Your task to perform on an android device: change your default location settings in chrome Image 0: 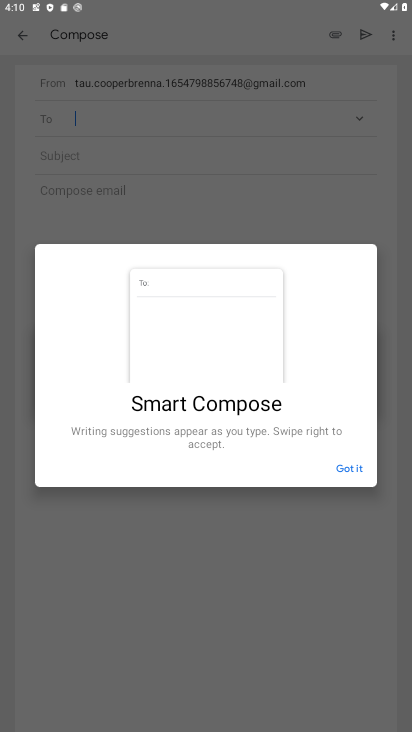
Step 0: press home button
Your task to perform on an android device: change your default location settings in chrome Image 1: 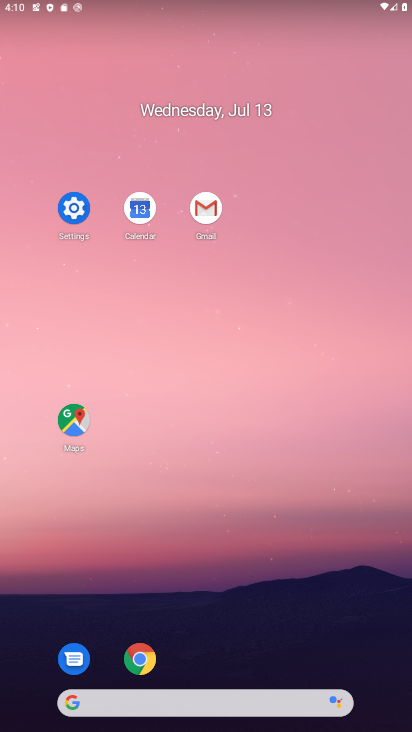
Step 1: click (139, 658)
Your task to perform on an android device: change your default location settings in chrome Image 2: 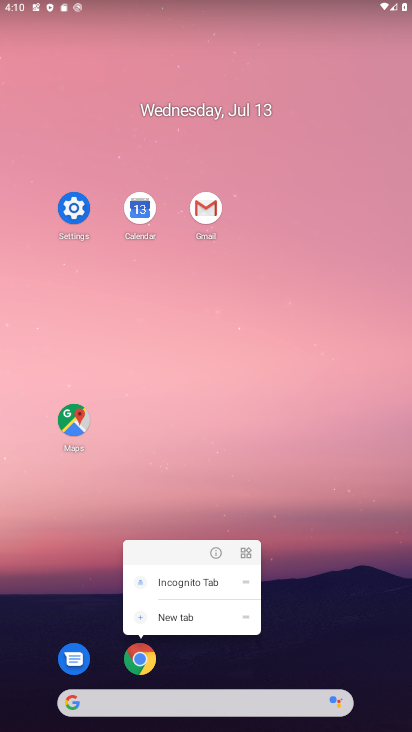
Step 2: click (213, 551)
Your task to perform on an android device: change your default location settings in chrome Image 3: 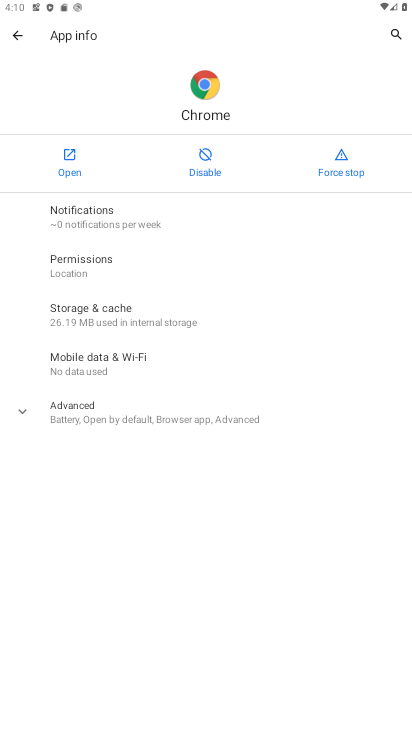
Step 3: click (173, 426)
Your task to perform on an android device: change your default location settings in chrome Image 4: 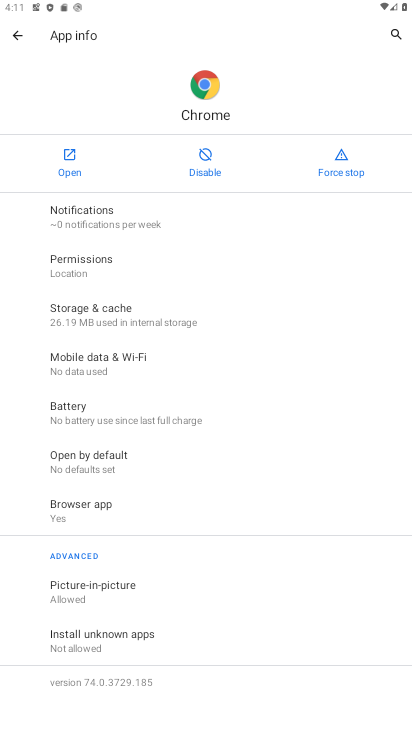
Step 4: drag from (169, 561) to (228, 229)
Your task to perform on an android device: change your default location settings in chrome Image 5: 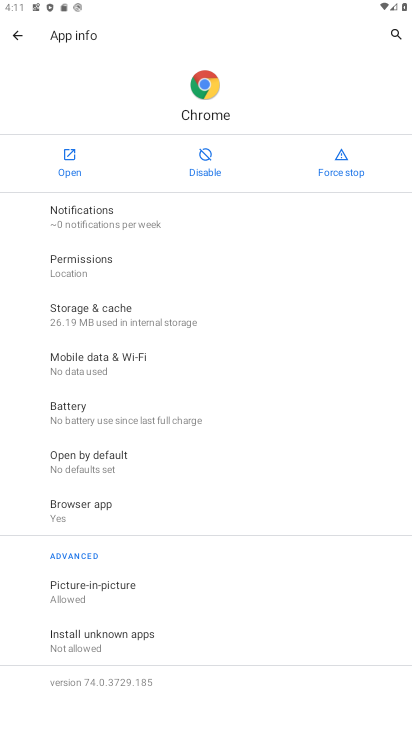
Step 5: click (130, 576)
Your task to perform on an android device: change your default location settings in chrome Image 6: 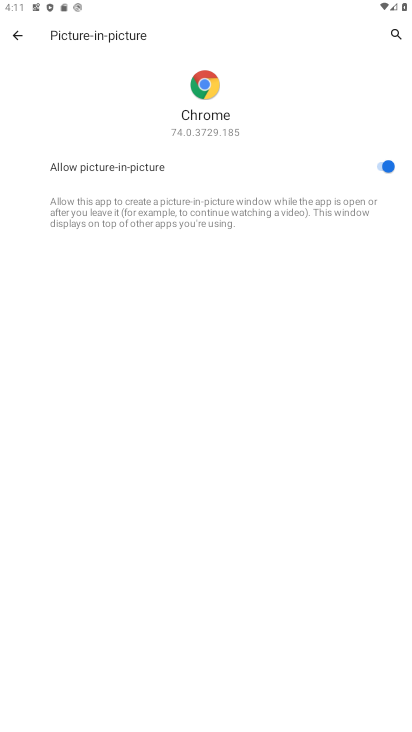
Step 6: click (382, 173)
Your task to perform on an android device: change your default location settings in chrome Image 7: 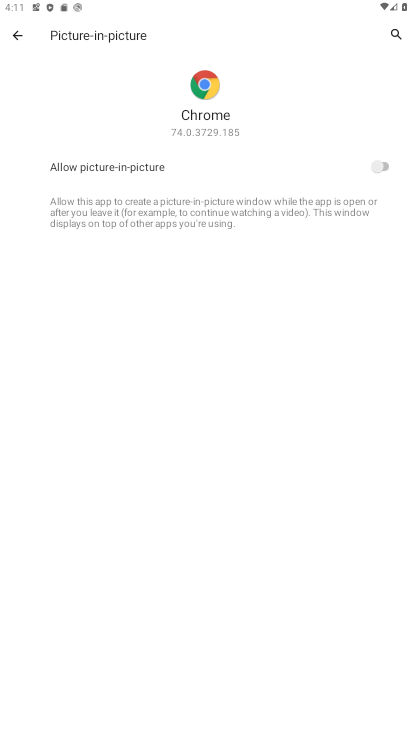
Step 7: task complete